Your task to perform on an android device: Go to location settings Image 0: 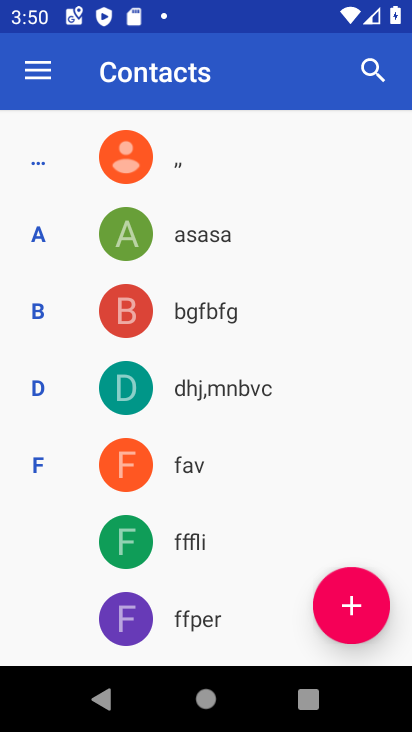
Step 0: press home button
Your task to perform on an android device: Go to location settings Image 1: 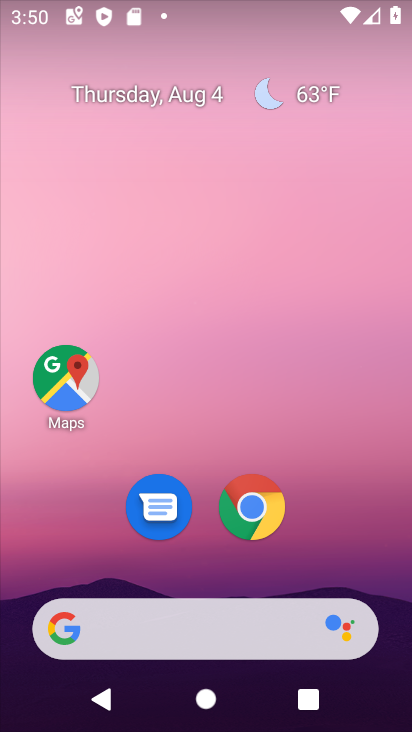
Step 1: drag from (24, 705) to (282, 244)
Your task to perform on an android device: Go to location settings Image 2: 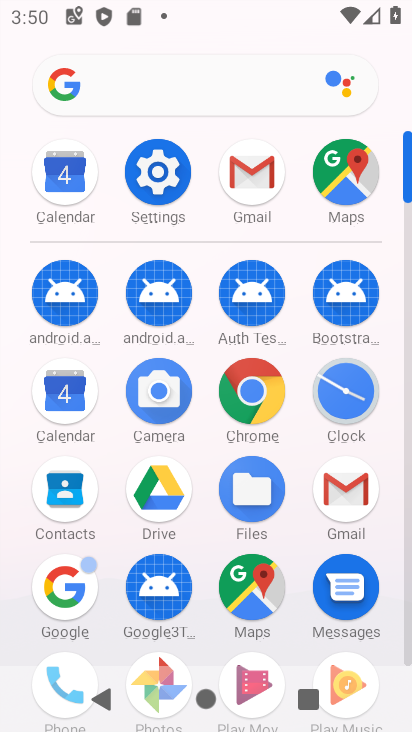
Step 2: drag from (106, 639) to (162, 130)
Your task to perform on an android device: Go to location settings Image 3: 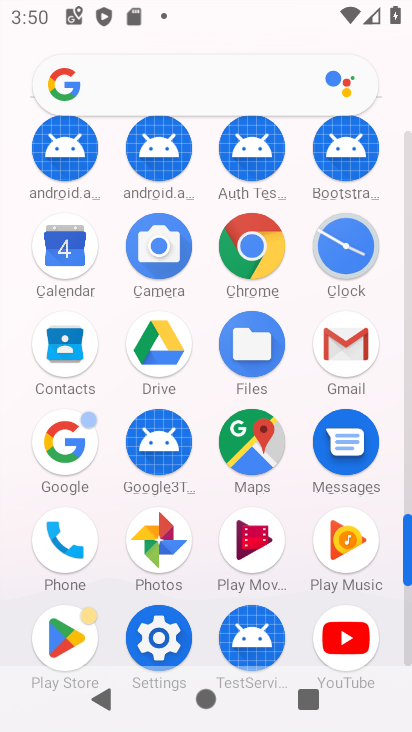
Step 3: click (166, 622)
Your task to perform on an android device: Go to location settings Image 4: 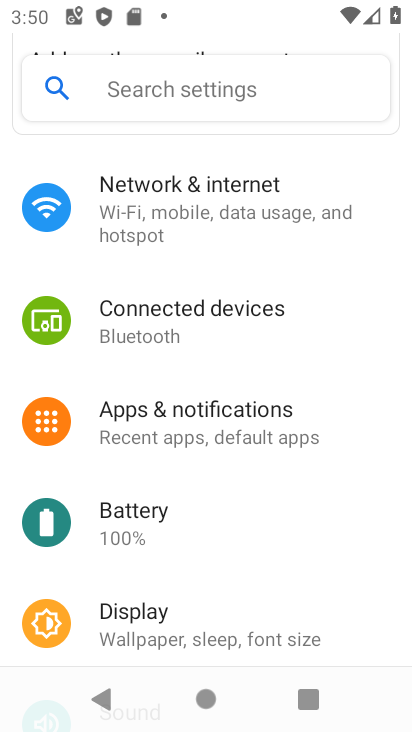
Step 4: drag from (169, 616) to (283, 37)
Your task to perform on an android device: Go to location settings Image 5: 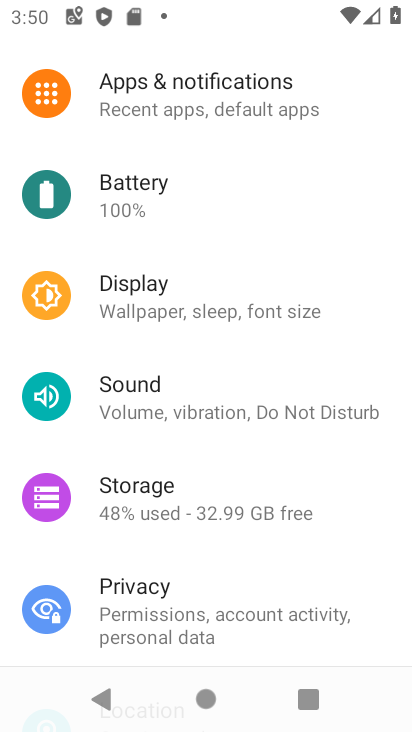
Step 5: drag from (202, 591) to (248, 397)
Your task to perform on an android device: Go to location settings Image 6: 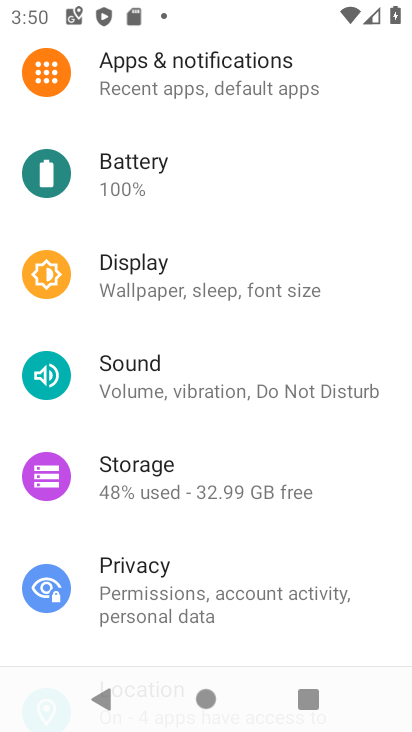
Step 6: drag from (205, 602) to (238, 259)
Your task to perform on an android device: Go to location settings Image 7: 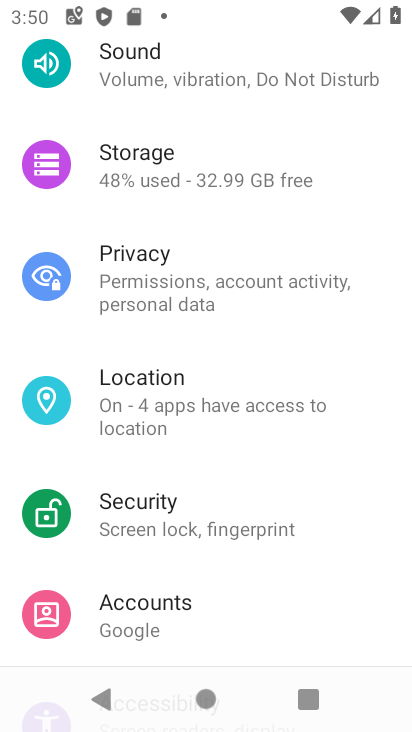
Step 7: click (152, 374)
Your task to perform on an android device: Go to location settings Image 8: 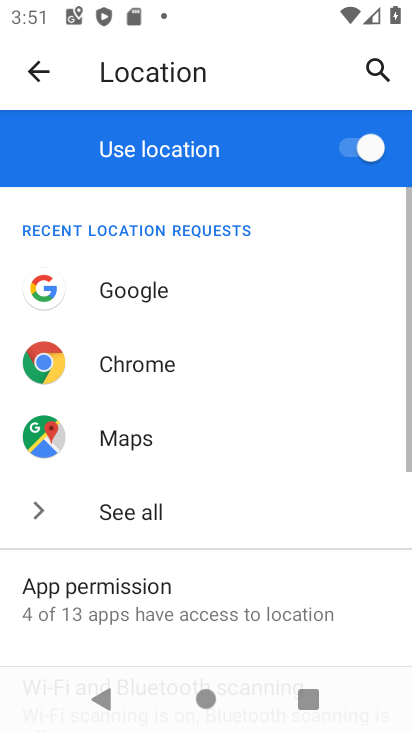
Step 8: task complete